Your task to perform on an android device: Open Chrome and go to settings Image 0: 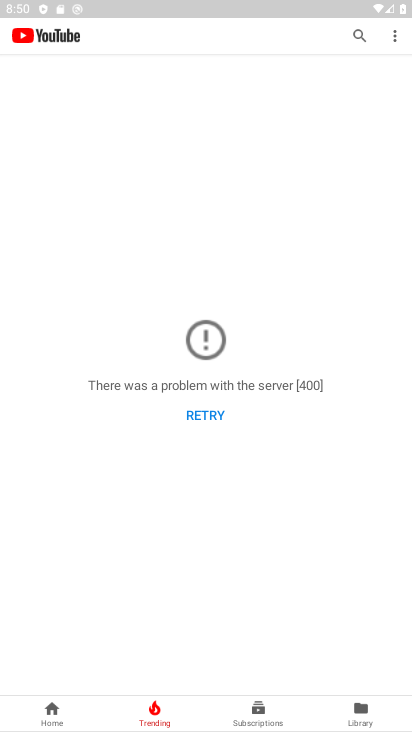
Step 0: press back button
Your task to perform on an android device: Open Chrome and go to settings Image 1: 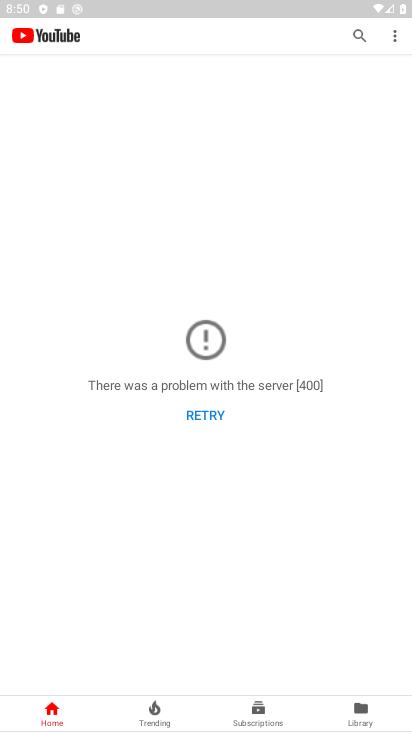
Step 1: press home button
Your task to perform on an android device: Open Chrome and go to settings Image 2: 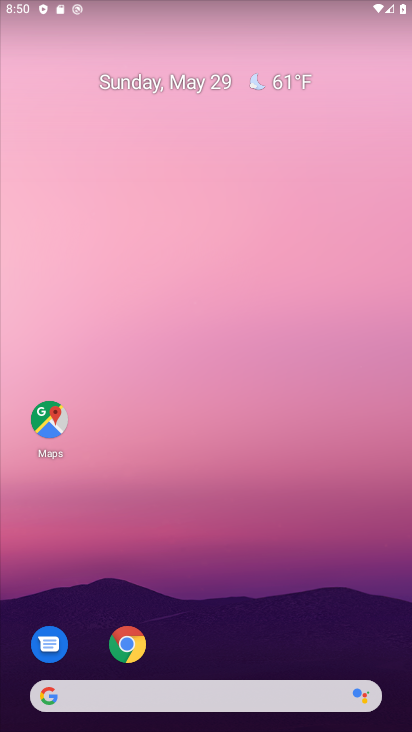
Step 2: click (117, 648)
Your task to perform on an android device: Open Chrome and go to settings Image 3: 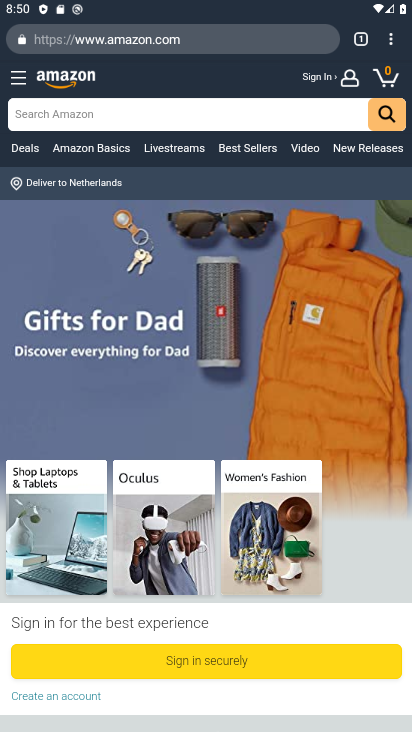
Step 3: task complete